Your task to perform on an android device: Open the web browser Image 0: 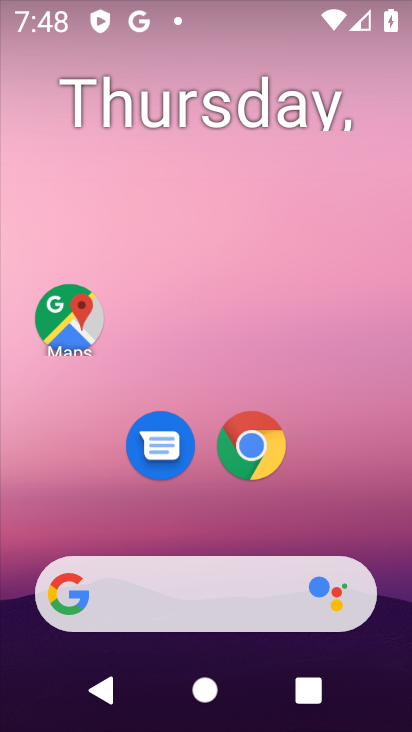
Step 0: press home button
Your task to perform on an android device: Open the web browser Image 1: 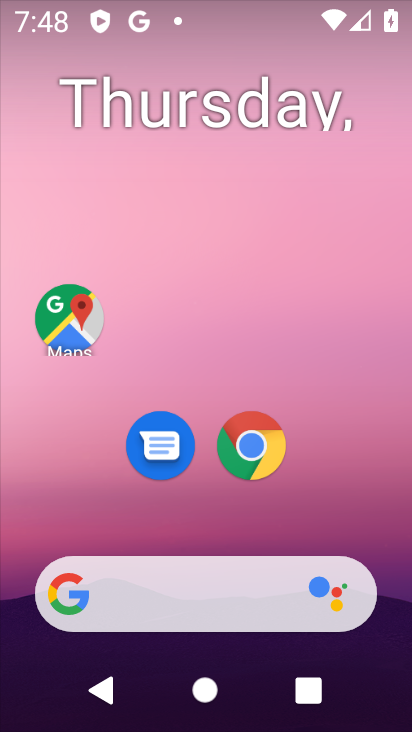
Step 1: drag from (357, 502) to (352, 192)
Your task to perform on an android device: Open the web browser Image 2: 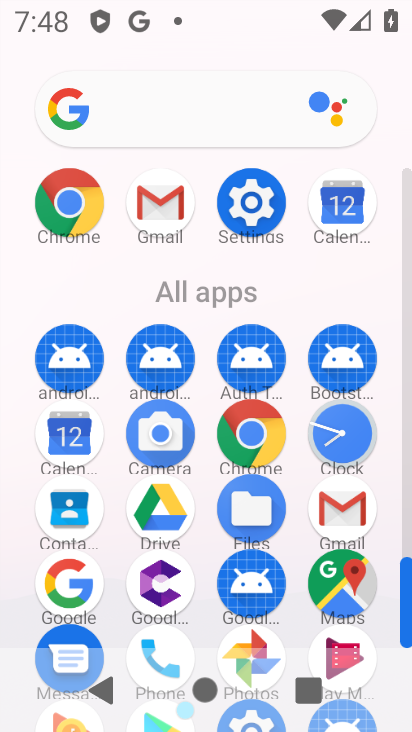
Step 2: click (255, 446)
Your task to perform on an android device: Open the web browser Image 3: 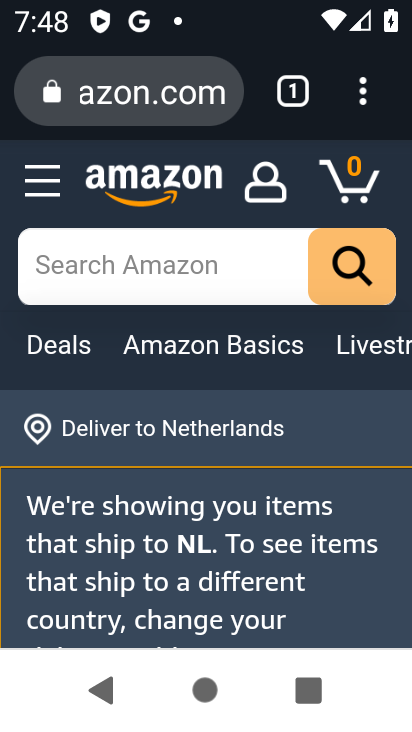
Step 3: task complete